Your task to perform on an android device: Set the phone to "Do not disturb". Image 0: 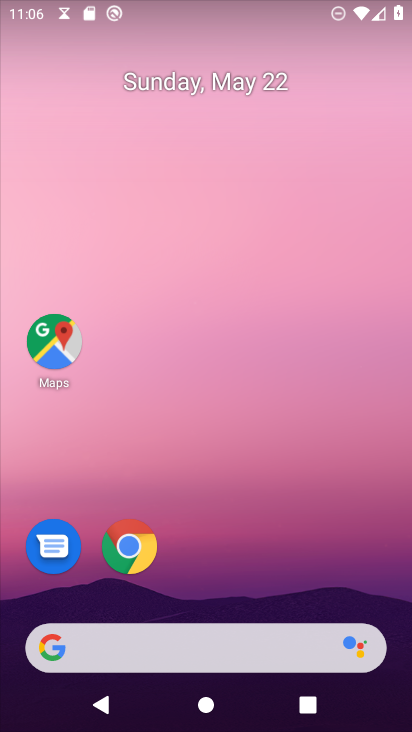
Step 0: drag from (233, 607) to (303, 6)
Your task to perform on an android device: Set the phone to "Do not disturb". Image 1: 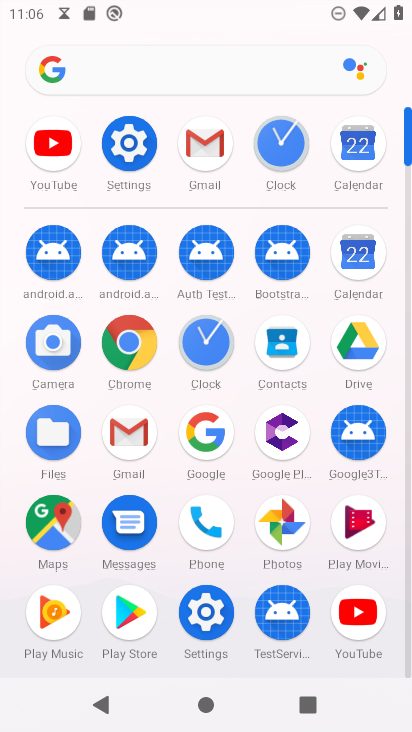
Step 1: click (209, 601)
Your task to perform on an android device: Set the phone to "Do not disturb". Image 2: 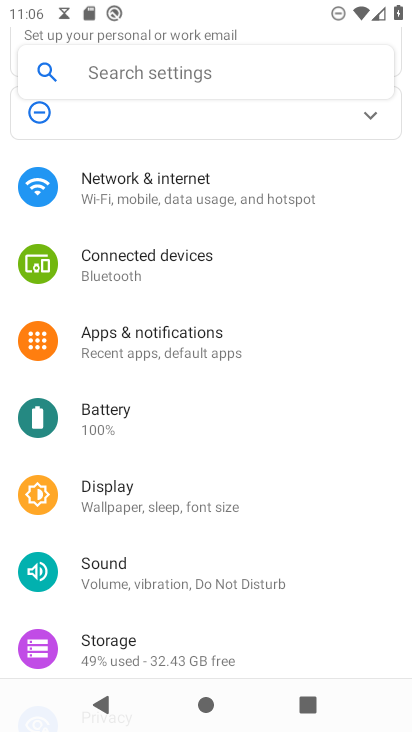
Step 2: click (138, 575)
Your task to perform on an android device: Set the phone to "Do not disturb". Image 3: 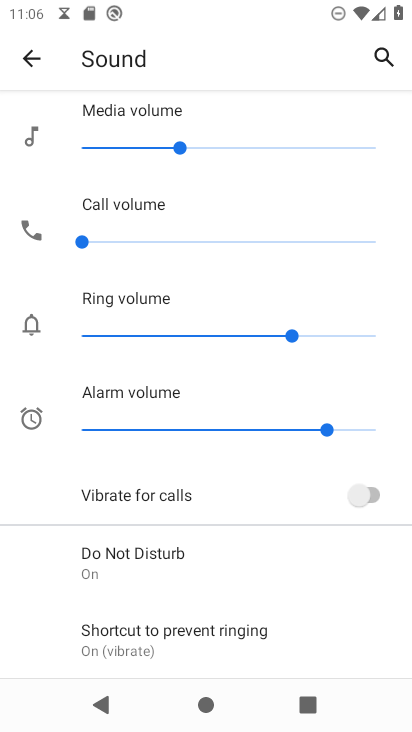
Step 3: click (118, 561)
Your task to perform on an android device: Set the phone to "Do not disturb". Image 4: 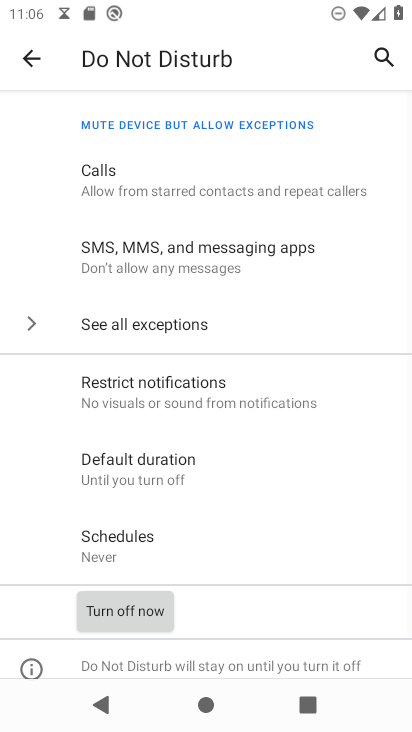
Step 4: task complete